Your task to perform on an android device: See recent photos Image 0: 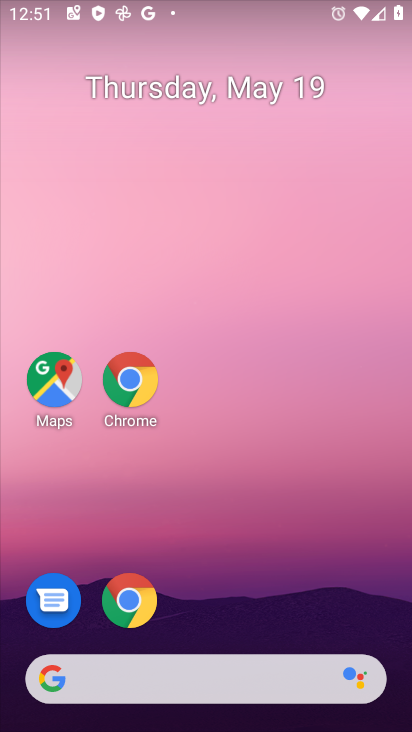
Step 0: drag from (325, 596) to (118, 79)
Your task to perform on an android device: See recent photos Image 1: 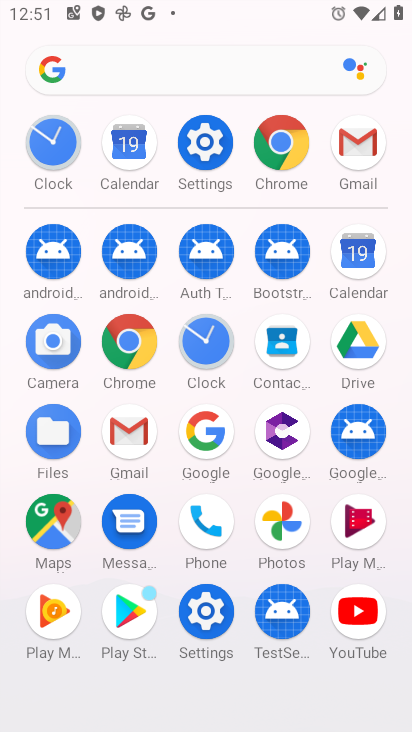
Step 1: click (280, 523)
Your task to perform on an android device: See recent photos Image 2: 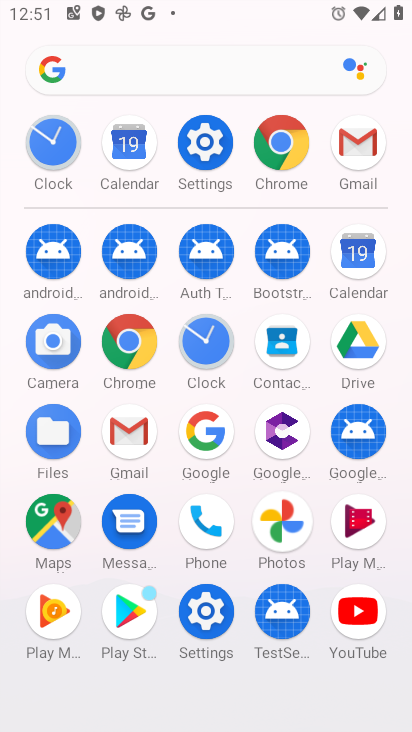
Step 2: click (280, 523)
Your task to perform on an android device: See recent photos Image 3: 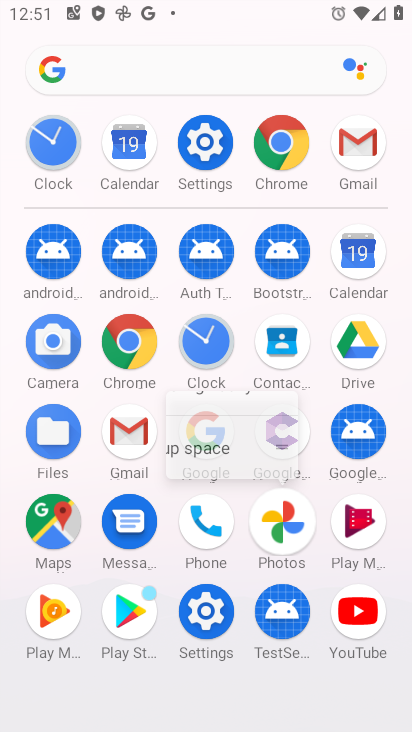
Step 3: click (274, 518)
Your task to perform on an android device: See recent photos Image 4: 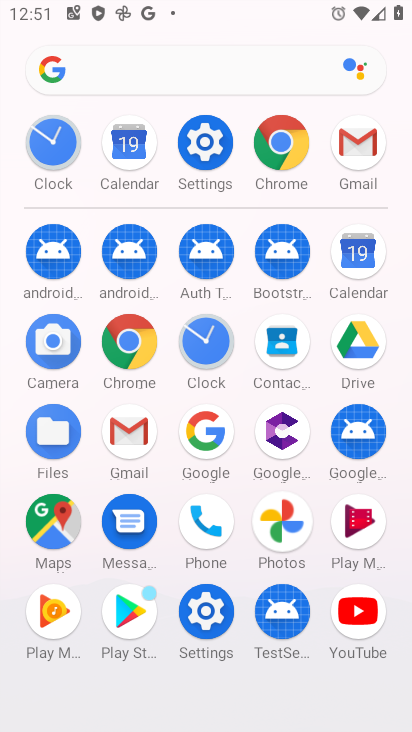
Step 4: click (288, 516)
Your task to perform on an android device: See recent photos Image 5: 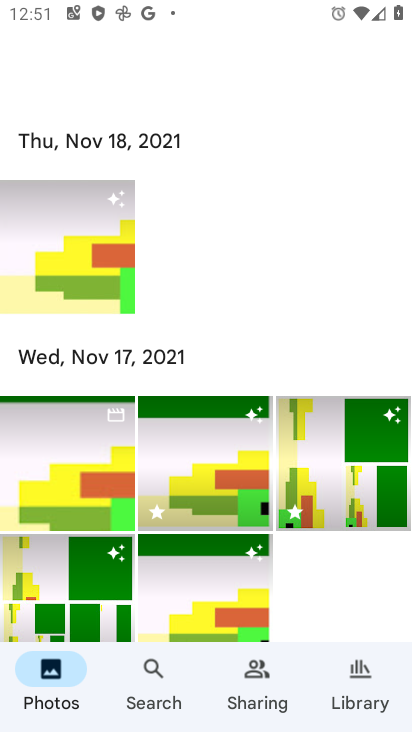
Step 5: click (289, 516)
Your task to perform on an android device: See recent photos Image 6: 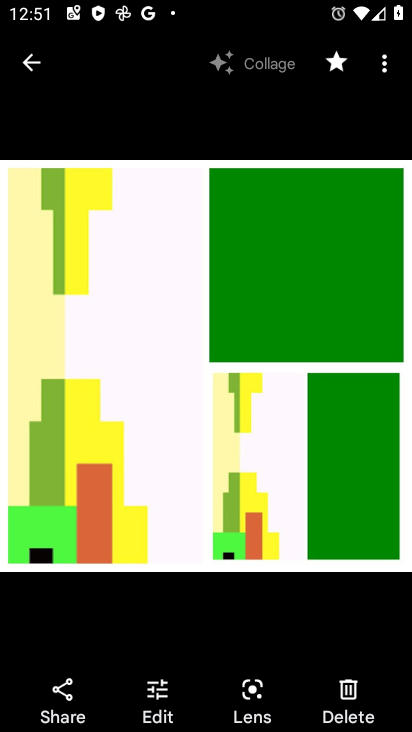
Step 6: click (27, 60)
Your task to perform on an android device: See recent photos Image 7: 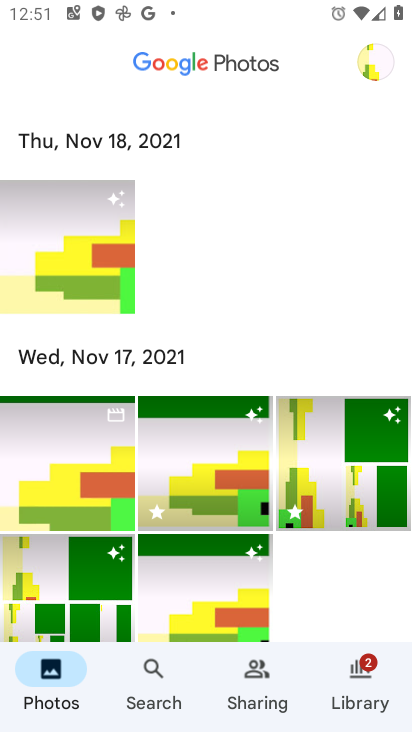
Step 7: click (158, 0)
Your task to perform on an android device: See recent photos Image 8: 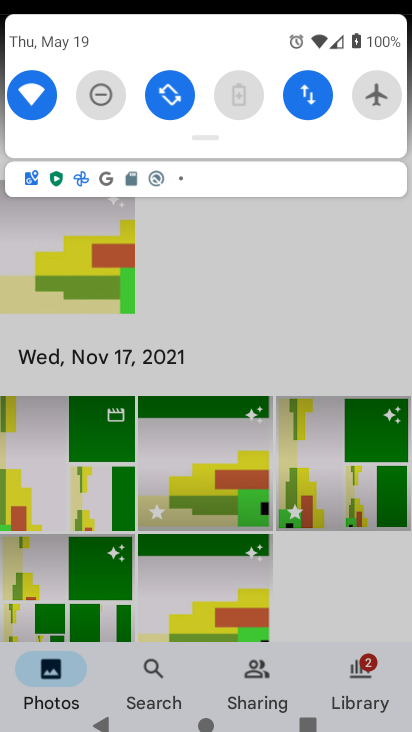
Step 8: task complete